Your task to perform on an android device: Do I have any events this weekend? Image 0: 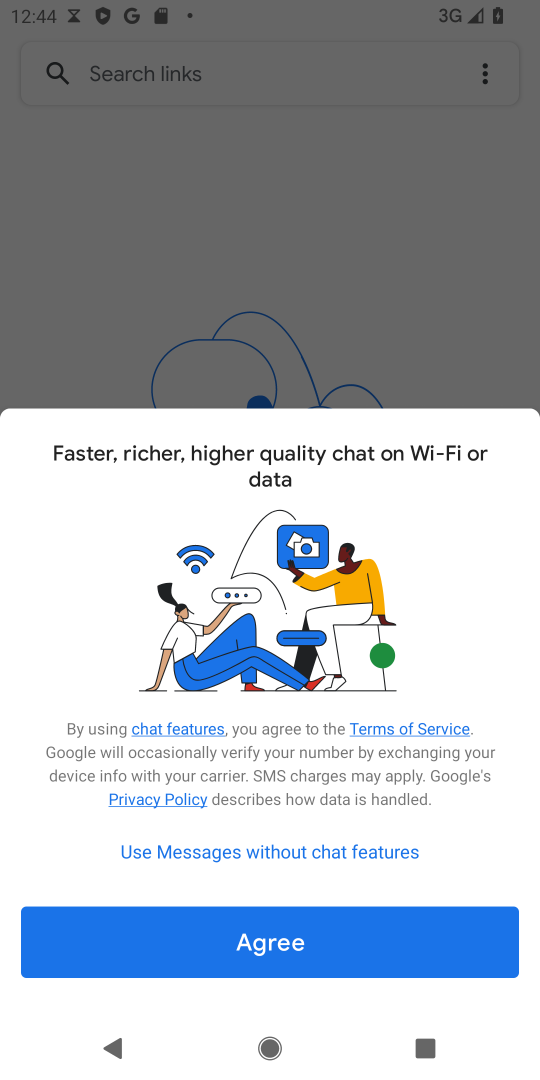
Step 0: press home button
Your task to perform on an android device: Do I have any events this weekend? Image 1: 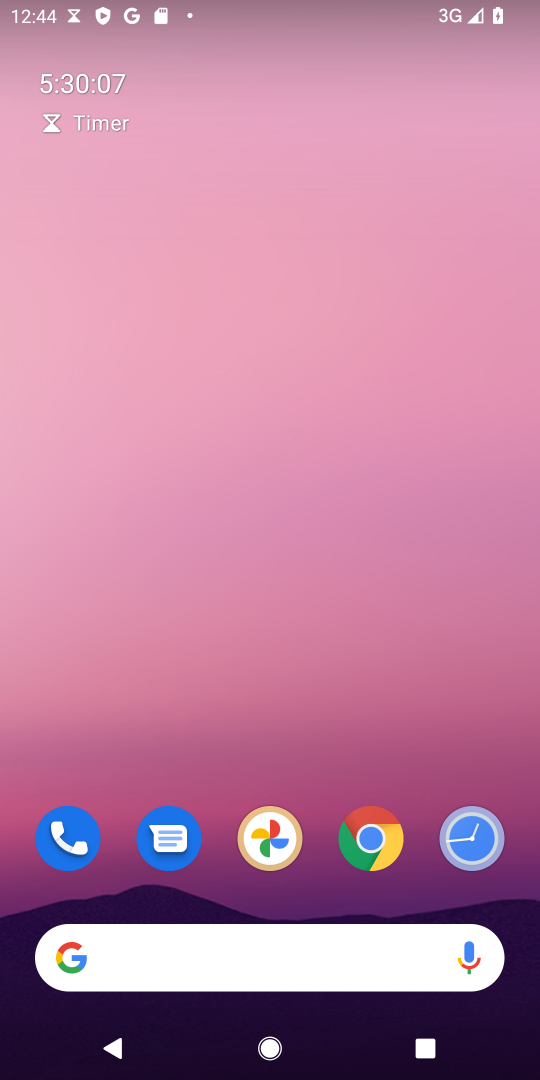
Step 1: drag from (262, 776) to (355, 22)
Your task to perform on an android device: Do I have any events this weekend? Image 2: 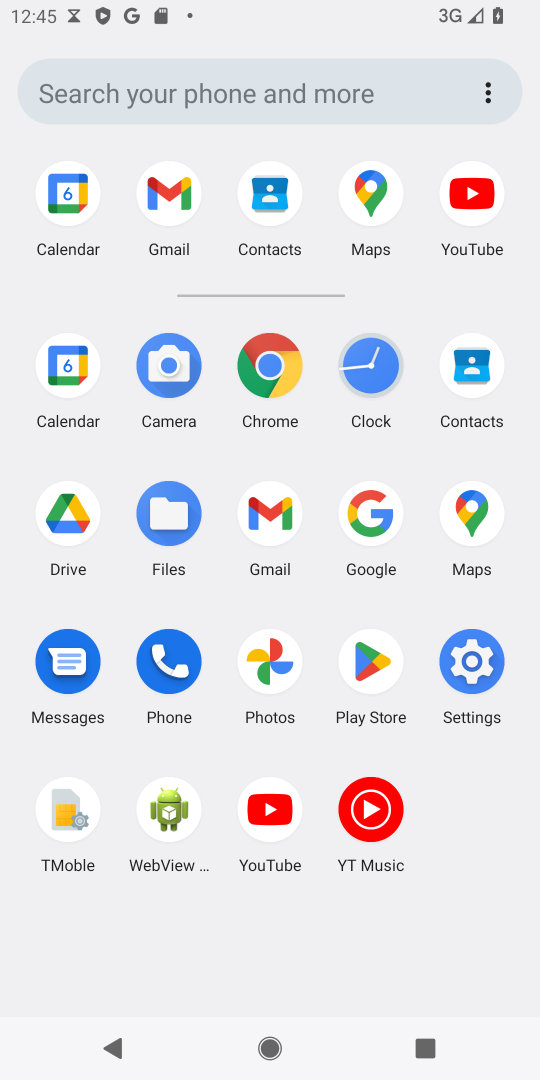
Step 2: click (73, 367)
Your task to perform on an android device: Do I have any events this weekend? Image 3: 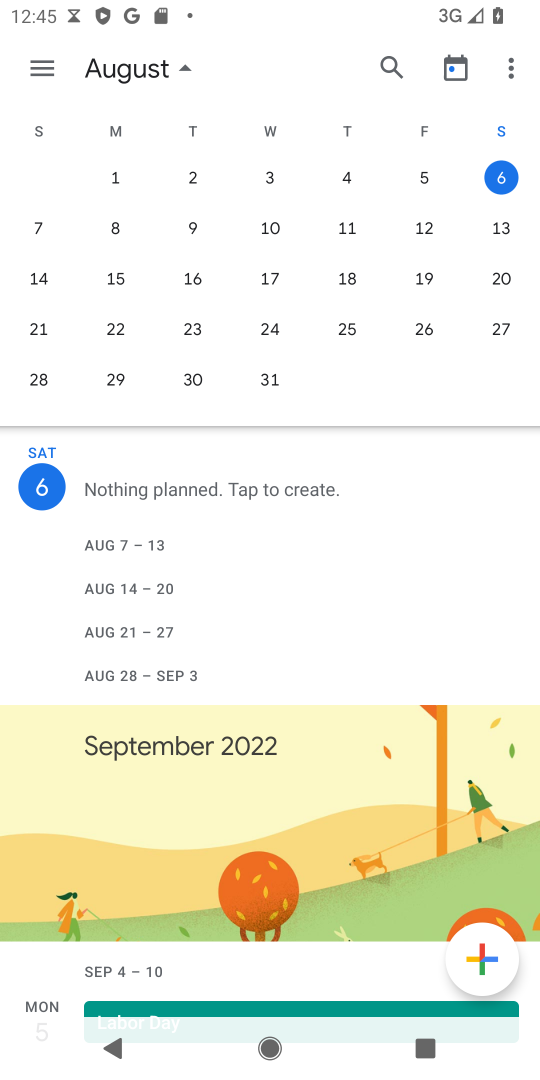
Step 3: click (511, 178)
Your task to perform on an android device: Do I have any events this weekend? Image 4: 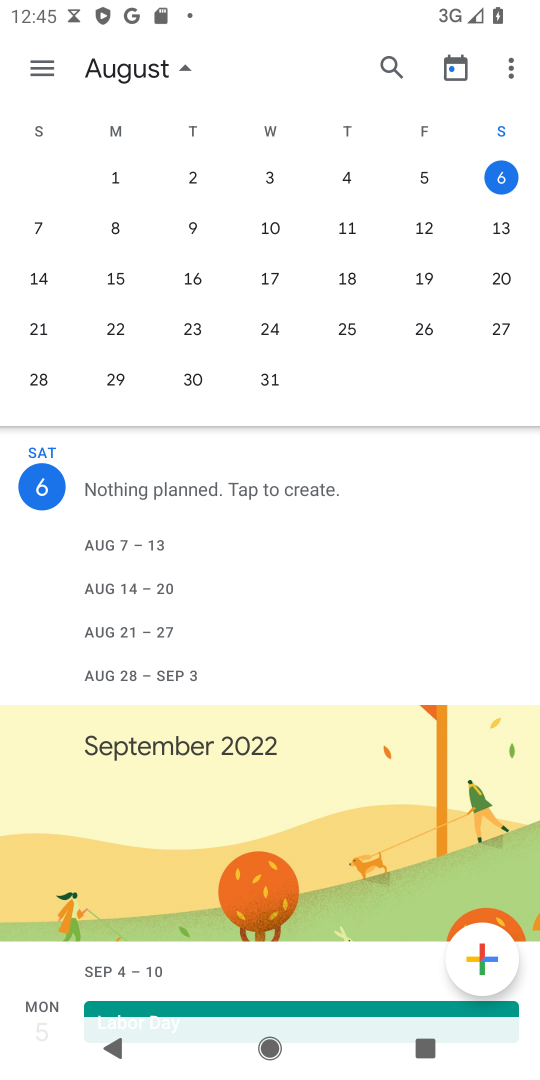
Step 4: task complete